Your task to perform on an android device: Open the web browser Image 0: 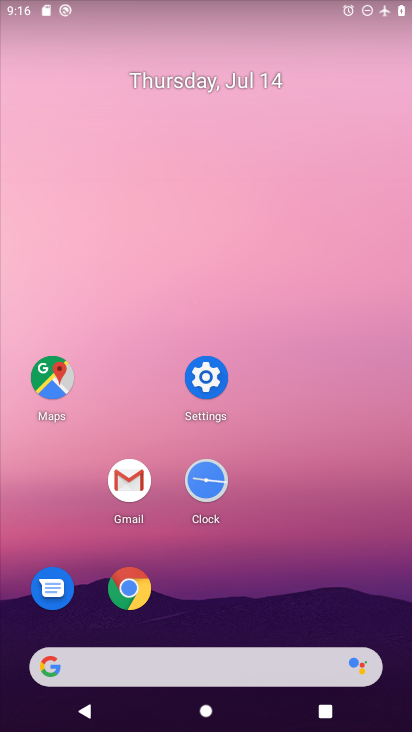
Step 0: click (111, 590)
Your task to perform on an android device: Open the web browser Image 1: 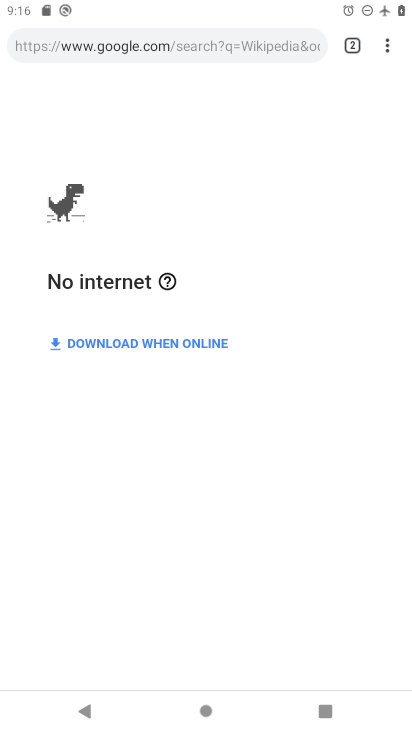
Step 1: task complete